Your task to perform on an android device: Open accessibility settings Image 0: 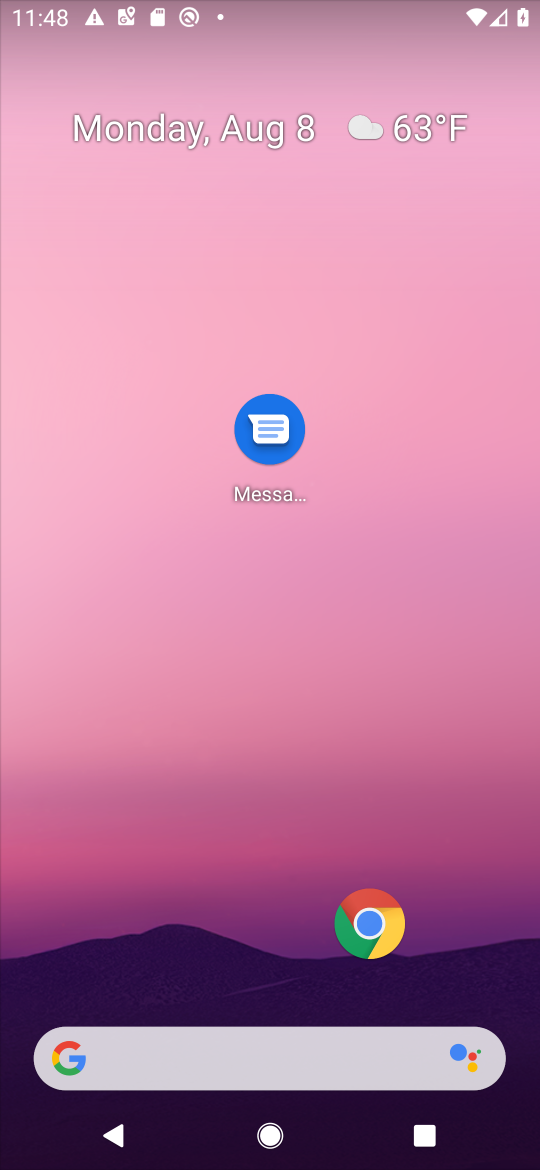
Step 0: drag from (53, 1138) to (157, 270)
Your task to perform on an android device: Open accessibility settings Image 1: 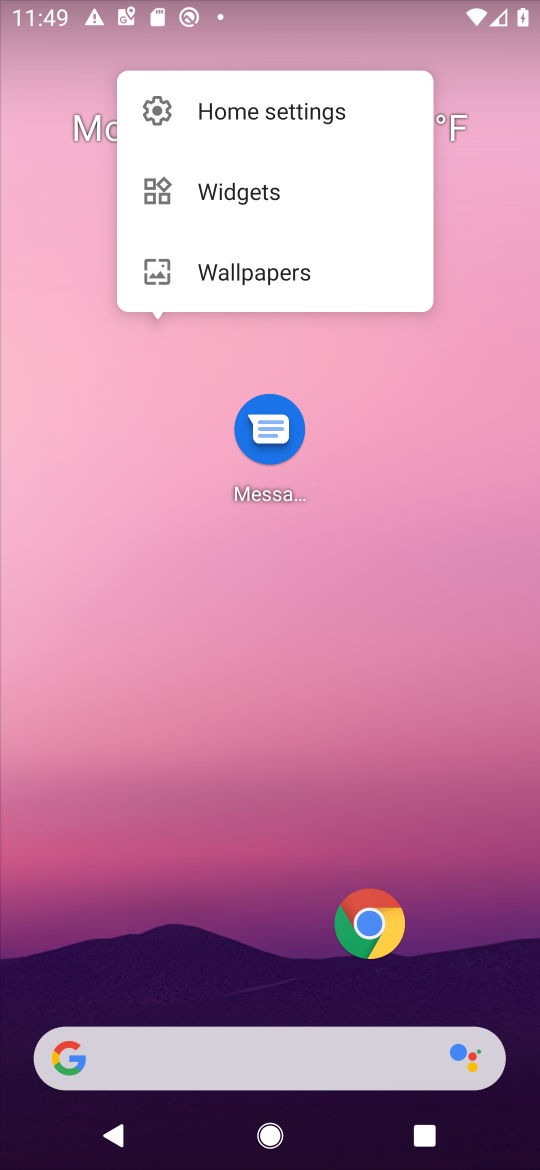
Step 1: task complete